Your task to perform on an android device: turn off notifications settings in the gmail app Image 0: 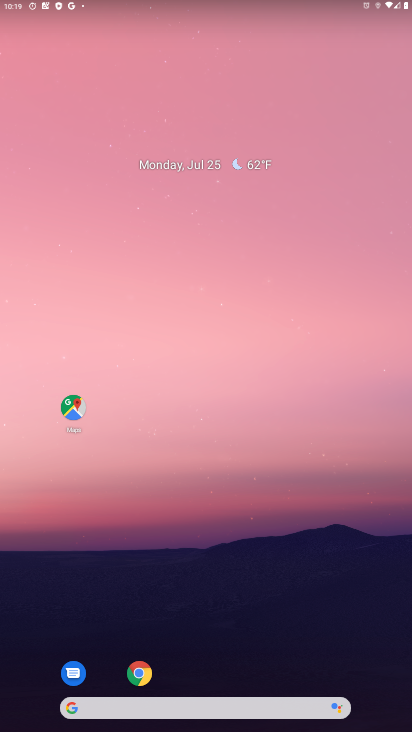
Step 0: drag from (199, 604) to (253, 103)
Your task to perform on an android device: turn off notifications settings in the gmail app Image 1: 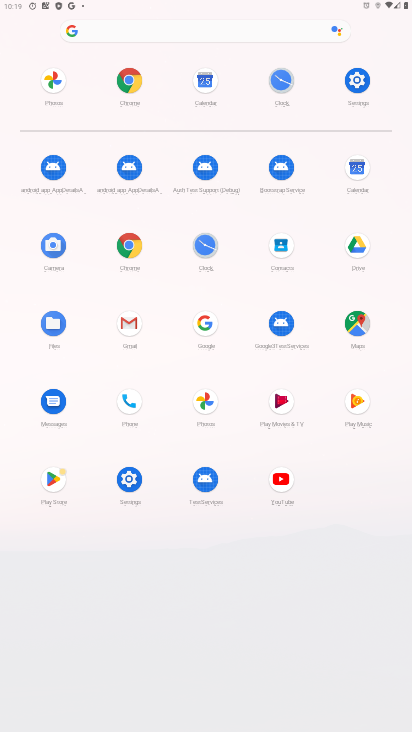
Step 1: click (129, 318)
Your task to perform on an android device: turn off notifications settings in the gmail app Image 2: 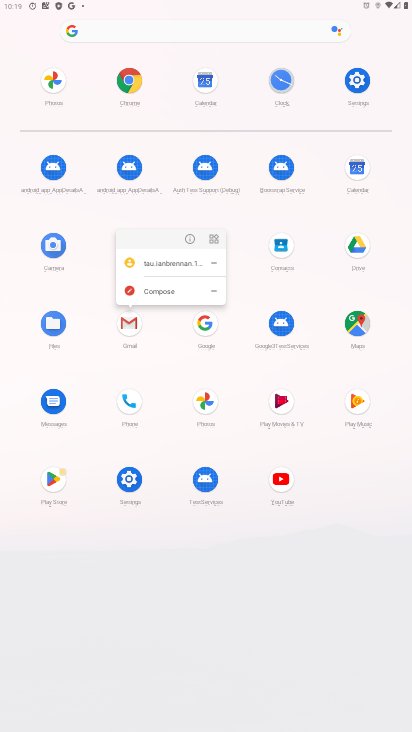
Step 2: click (191, 238)
Your task to perform on an android device: turn off notifications settings in the gmail app Image 3: 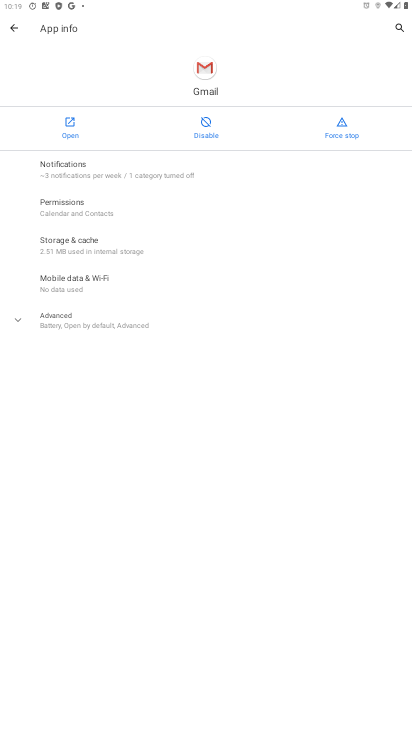
Step 3: click (67, 130)
Your task to perform on an android device: turn off notifications settings in the gmail app Image 4: 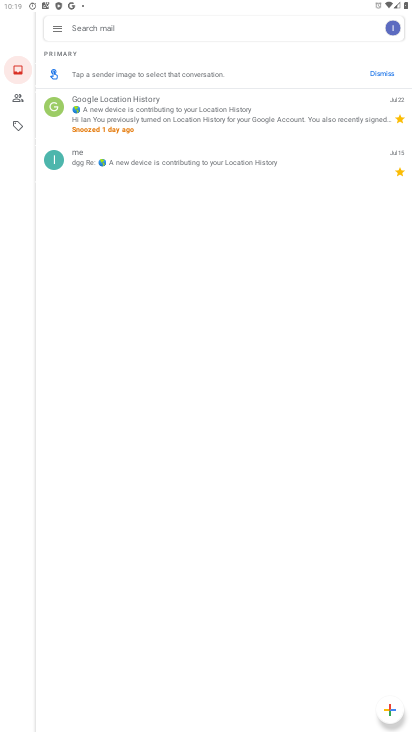
Step 4: click (54, 22)
Your task to perform on an android device: turn off notifications settings in the gmail app Image 5: 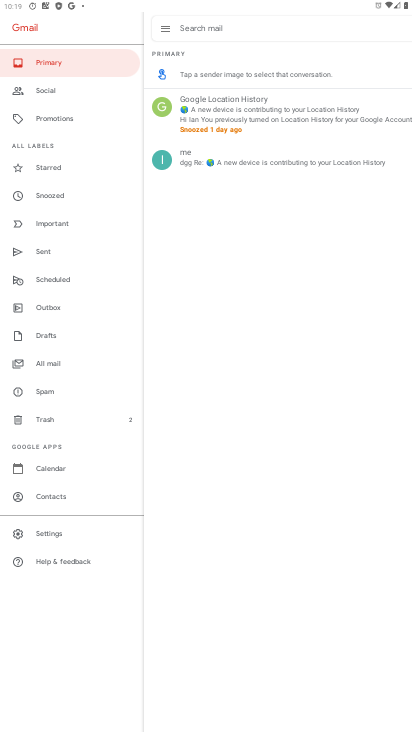
Step 5: click (44, 533)
Your task to perform on an android device: turn off notifications settings in the gmail app Image 6: 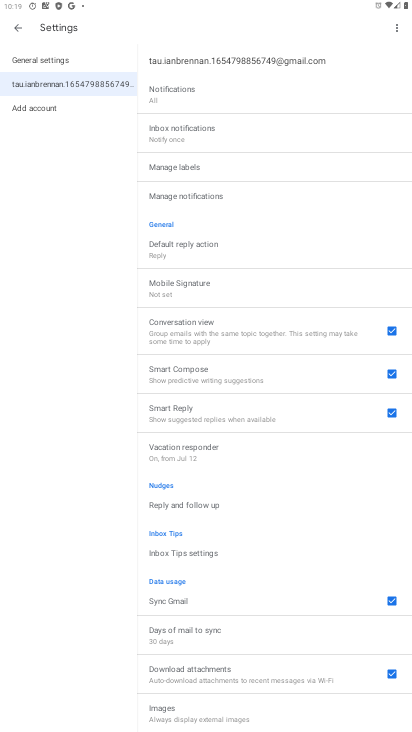
Step 6: click (201, 200)
Your task to perform on an android device: turn off notifications settings in the gmail app Image 7: 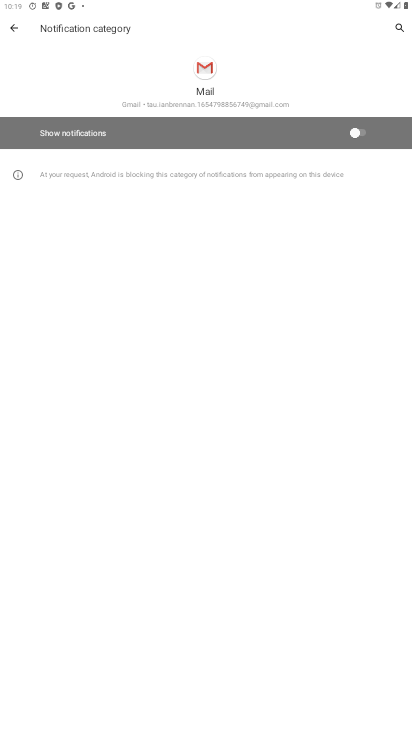
Step 7: task complete